Your task to perform on an android device: Go to internet settings Image 0: 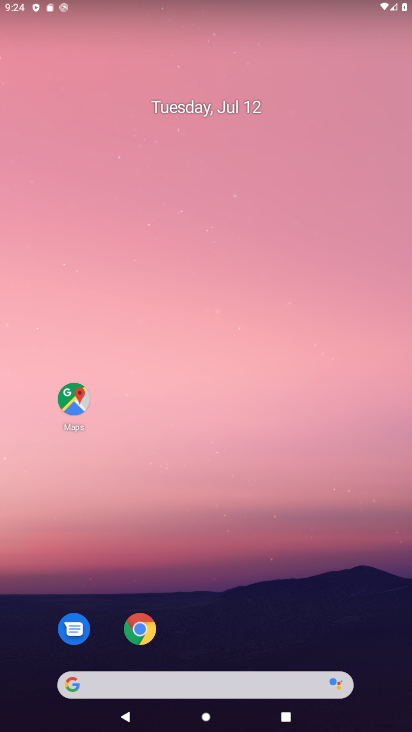
Step 0: click (210, 103)
Your task to perform on an android device: Go to internet settings Image 1: 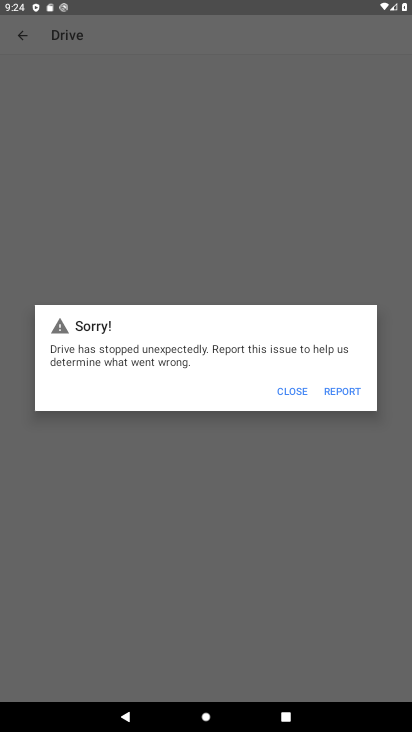
Step 1: press home button
Your task to perform on an android device: Go to internet settings Image 2: 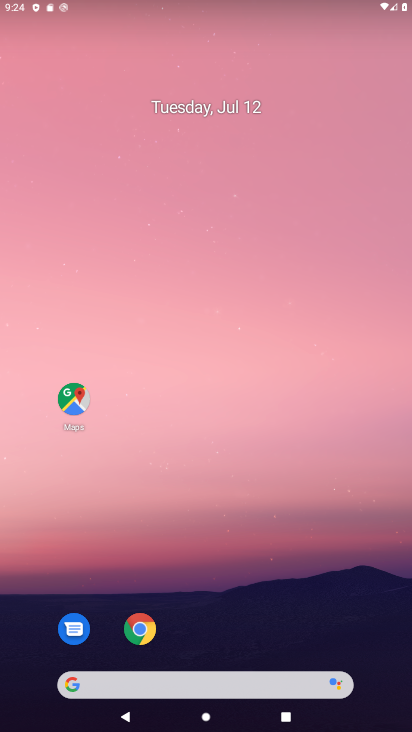
Step 2: drag from (328, 606) to (157, 65)
Your task to perform on an android device: Go to internet settings Image 3: 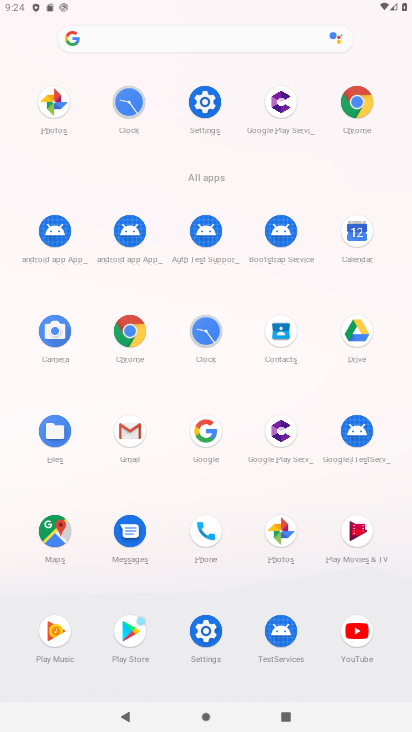
Step 3: click (206, 109)
Your task to perform on an android device: Go to internet settings Image 4: 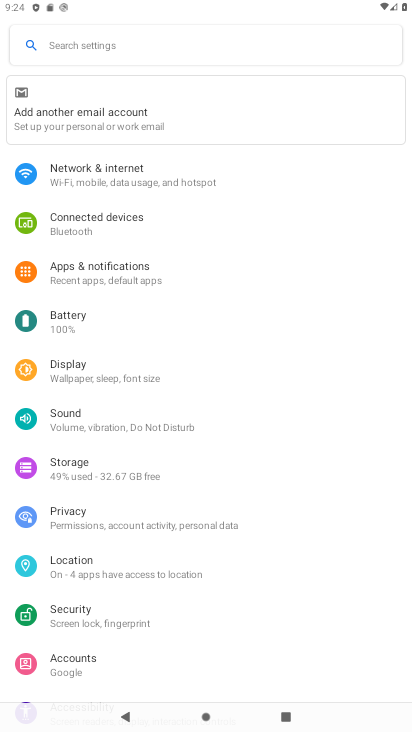
Step 4: click (105, 170)
Your task to perform on an android device: Go to internet settings Image 5: 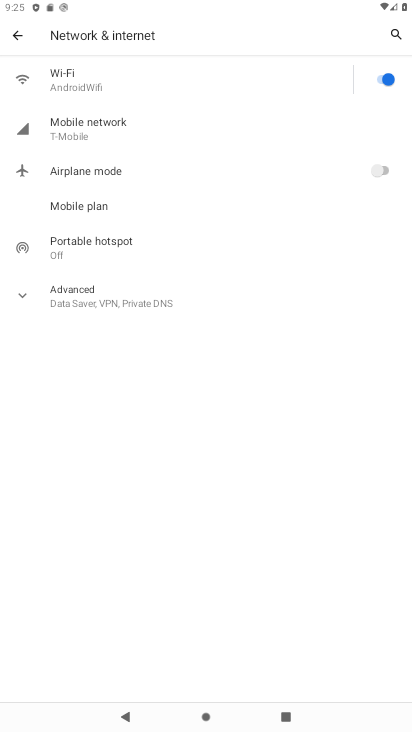
Step 5: task complete